Your task to perform on an android device: choose inbox layout in the gmail app Image 0: 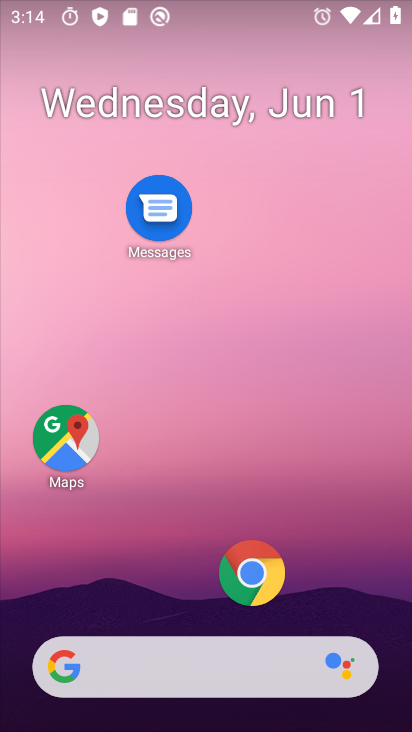
Step 0: drag from (182, 613) to (178, 202)
Your task to perform on an android device: choose inbox layout in the gmail app Image 1: 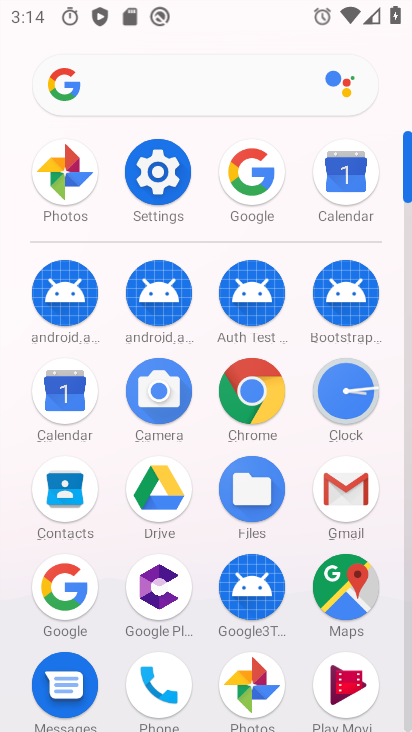
Step 1: click (337, 482)
Your task to perform on an android device: choose inbox layout in the gmail app Image 2: 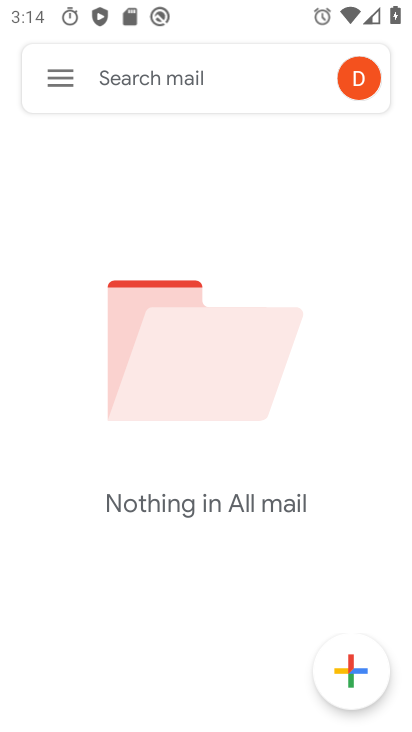
Step 2: click (62, 83)
Your task to perform on an android device: choose inbox layout in the gmail app Image 3: 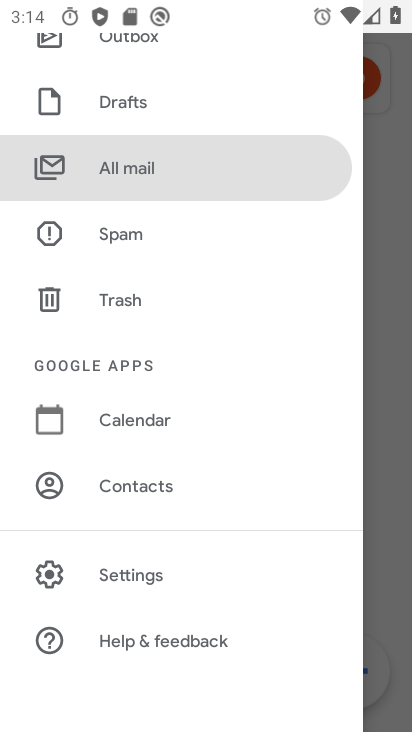
Step 3: click (136, 567)
Your task to perform on an android device: choose inbox layout in the gmail app Image 4: 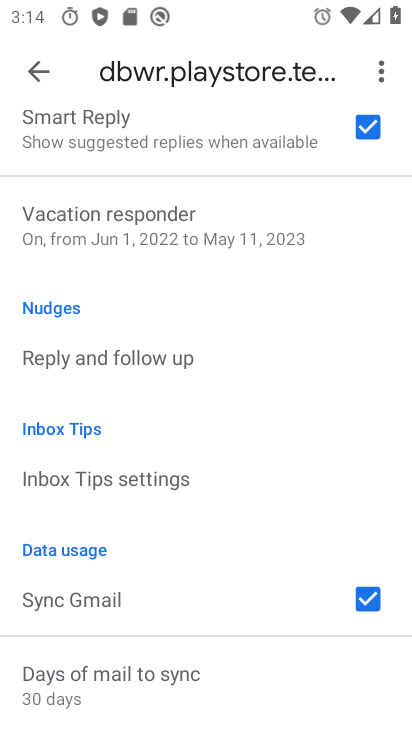
Step 4: click (40, 73)
Your task to perform on an android device: choose inbox layout in the gmail app Image 5: 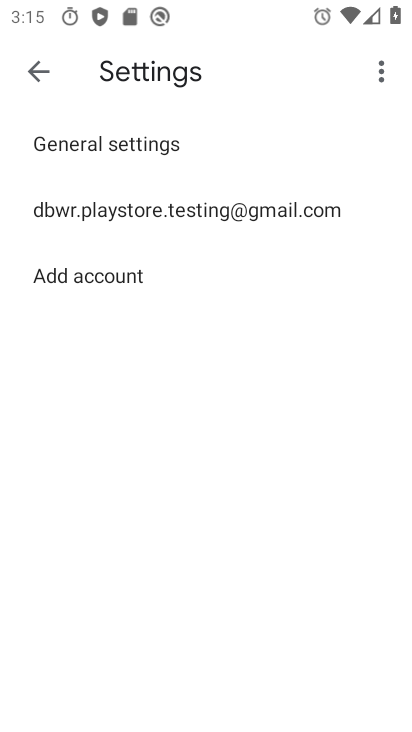
Step 5: click (144, 217)
Your task to perform on an android device: choose inbox layout in the gmail app Image 6: 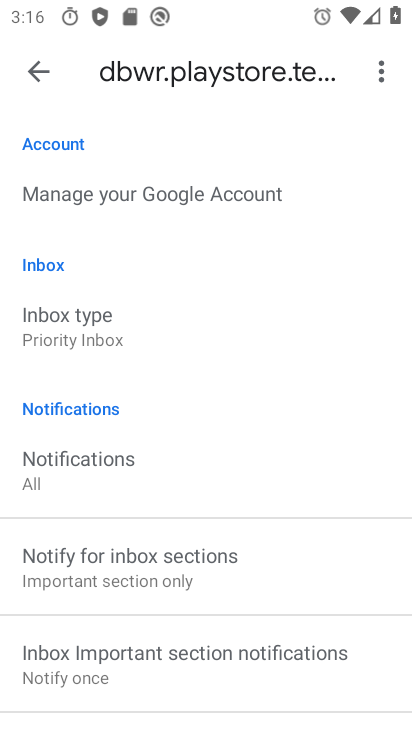
Step 6: press home button
Your task to perform on an android device: choose inbox layout in the gmail app Image 7: 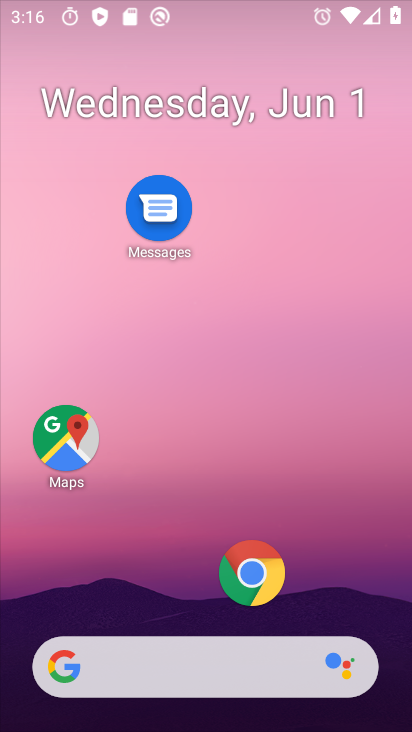
Step 7: drag from (202, 607) to (226, 174)
Your task to perform on an android device: choose inbox layout in the gmail app Image 8: 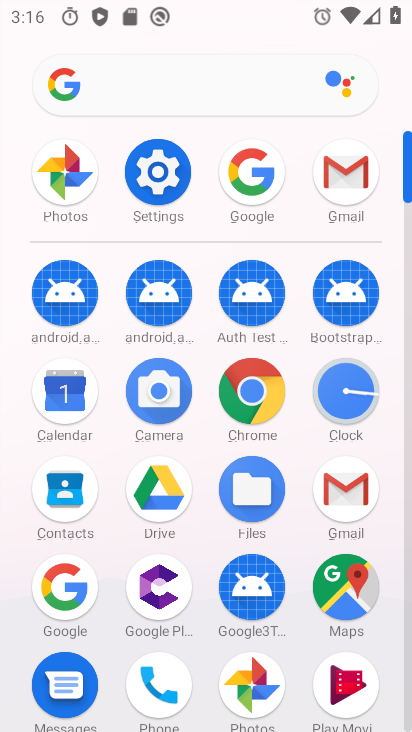
Step 8: click (367, 177)
Your task to perform on an android device: choose inbox layout in the gmail app Image 9: 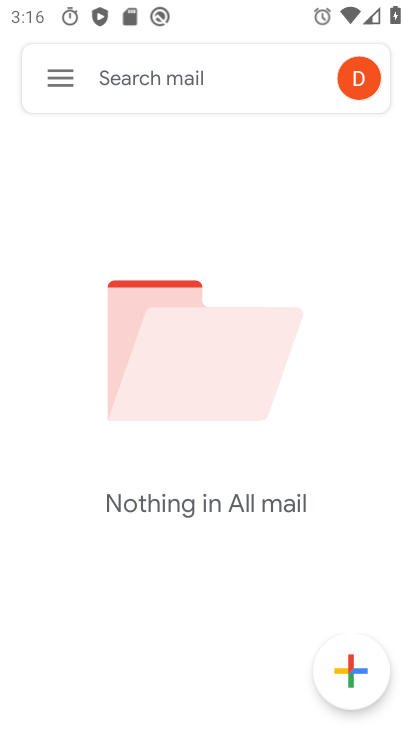
Step 9: click (67, 70)
Your task to perform on an android device: choose inbox layout in the gmail app Image 10: 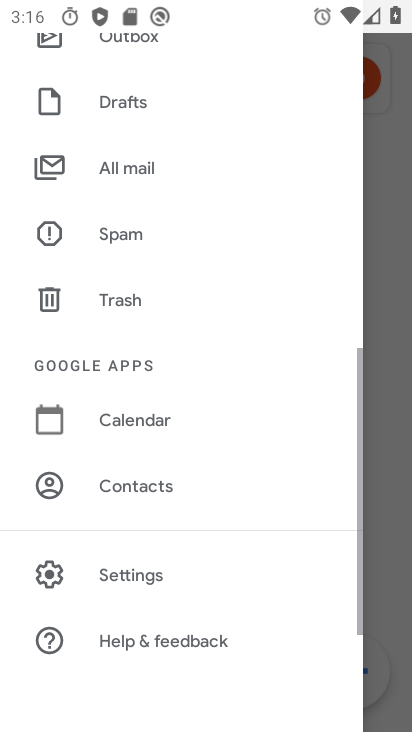
Step 10: click (125, 568)
Your task to perform on an android device: choose inbox layout in the gmail app Image 11: 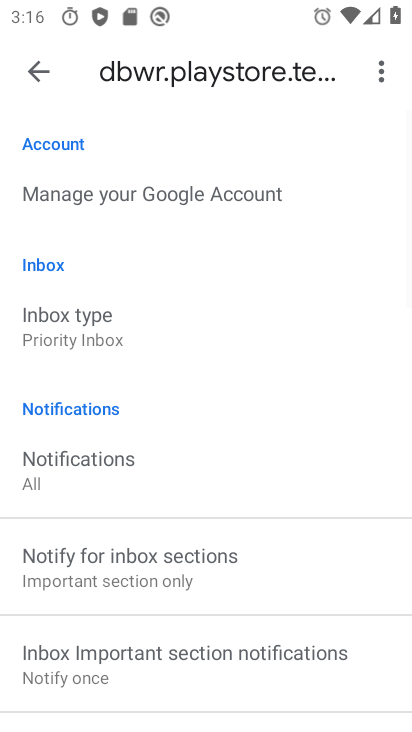
Step 11: click (135, 329)
Your task to perform on an android device: choose inbox layout in the gmail app Image 12: 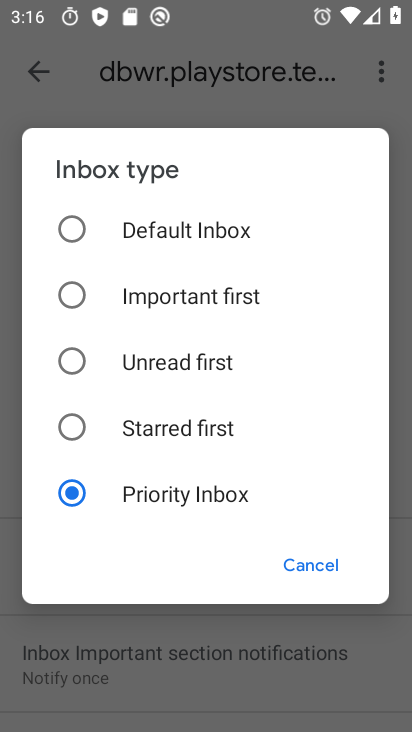
Step 12: click (154, 243)
Your task to perform on an android device: choose inbox layout in the gmail app Image 13: 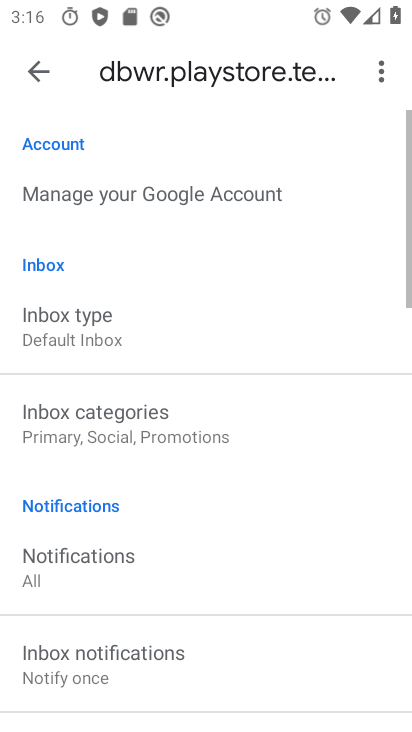
Step 13: task complete